Your task to perform on an android device: What's the weather going to be tomorrow? Image 0: 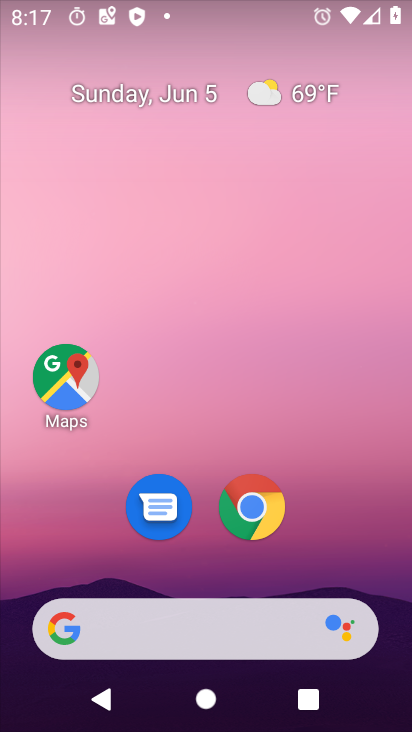
Step 0: drag from (377, 575) to (274, 42)
Your task to perform on an android device: What's the weather going to be tomorrow? Image 1: 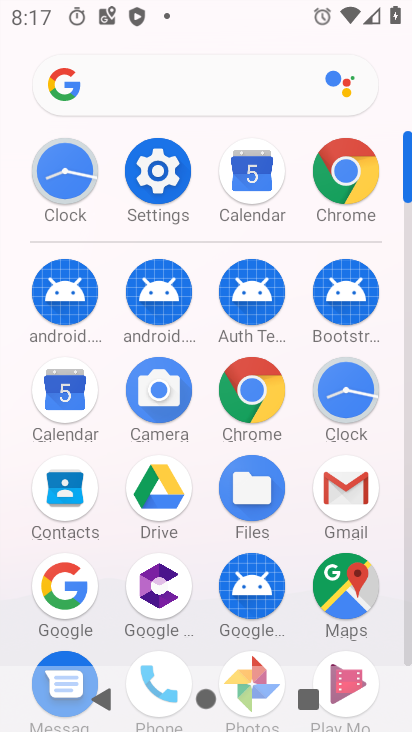
Step 1: drag from (9, 632) to (25, 307)
Your task to perform on an android device: What's the weather going to be tomorrow? Image 2: 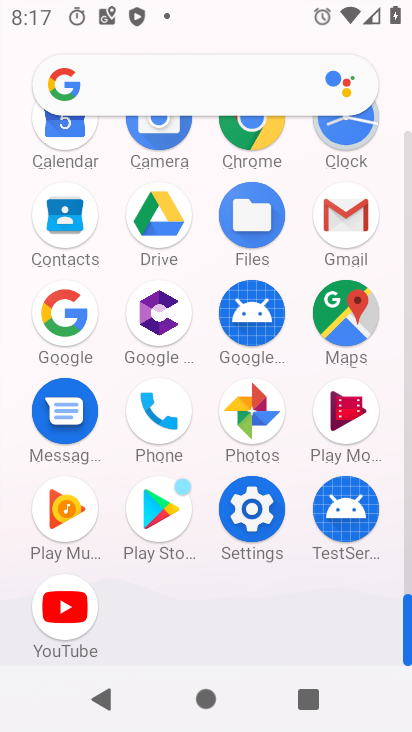
Step 2: click (251, 127)
Your task to perform on an android device: What's the weather going to be tomorrow? Image 3: 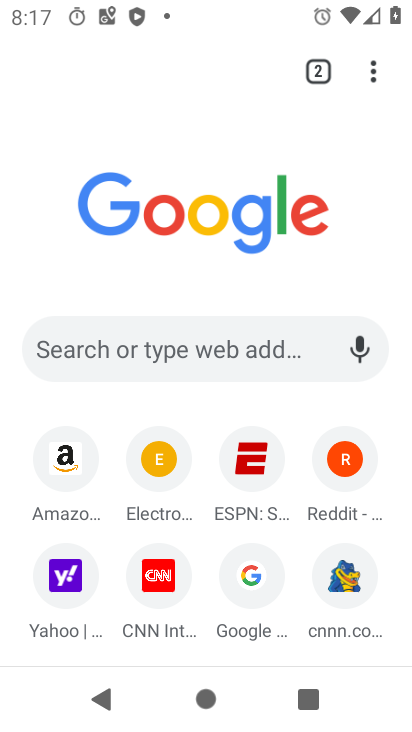
Step 3: click (114, 339)
Your task to perform on an android device: What's the weather going to be tomorrow? Image 4: 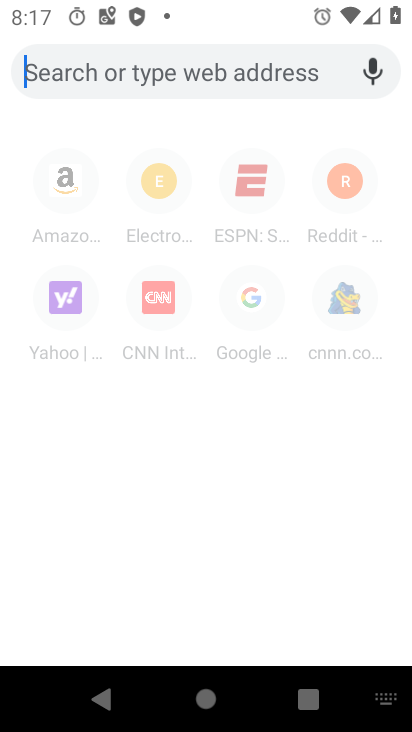
Step 4: type "What's the weather going to be tomorrow?"
Your task to perform on an android device: What's the weather going to be tomorrow? Image 5: 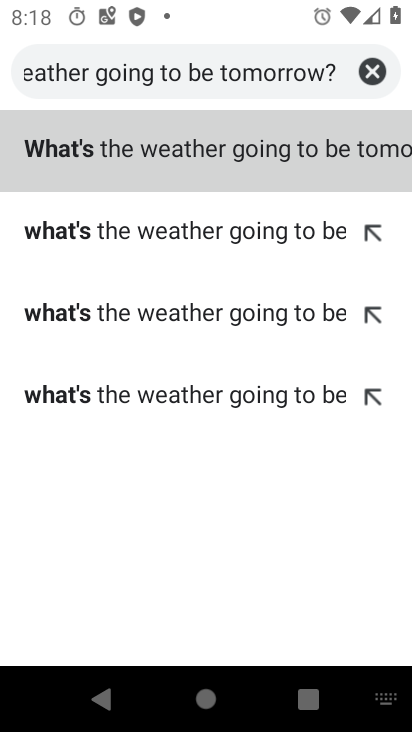
Step 5: click (170, 163)
Your task to perform on an android device: What's the weather going to be tomorrow? Image 6: 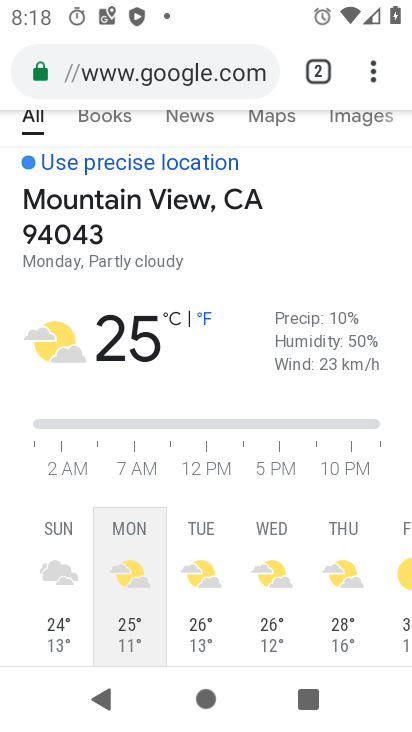
Step 6: task complete